Your task to perform on an android device: Open the phone app and click the voicemail tab. Image 0: 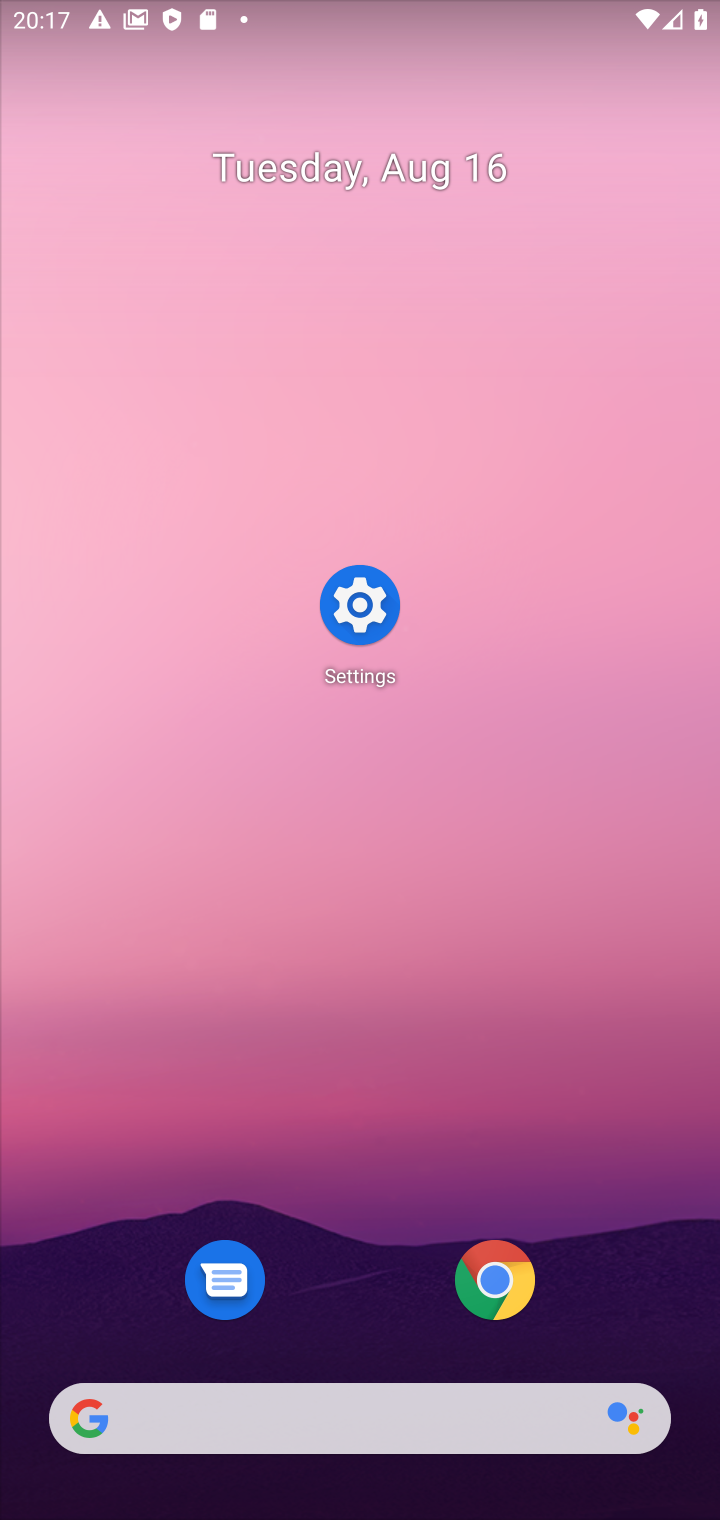
Step 0: drag from (347, 1275) to (408, 281)
Your task to perform on an android device: Open the phone app and click the voicemail tab. Image 1: 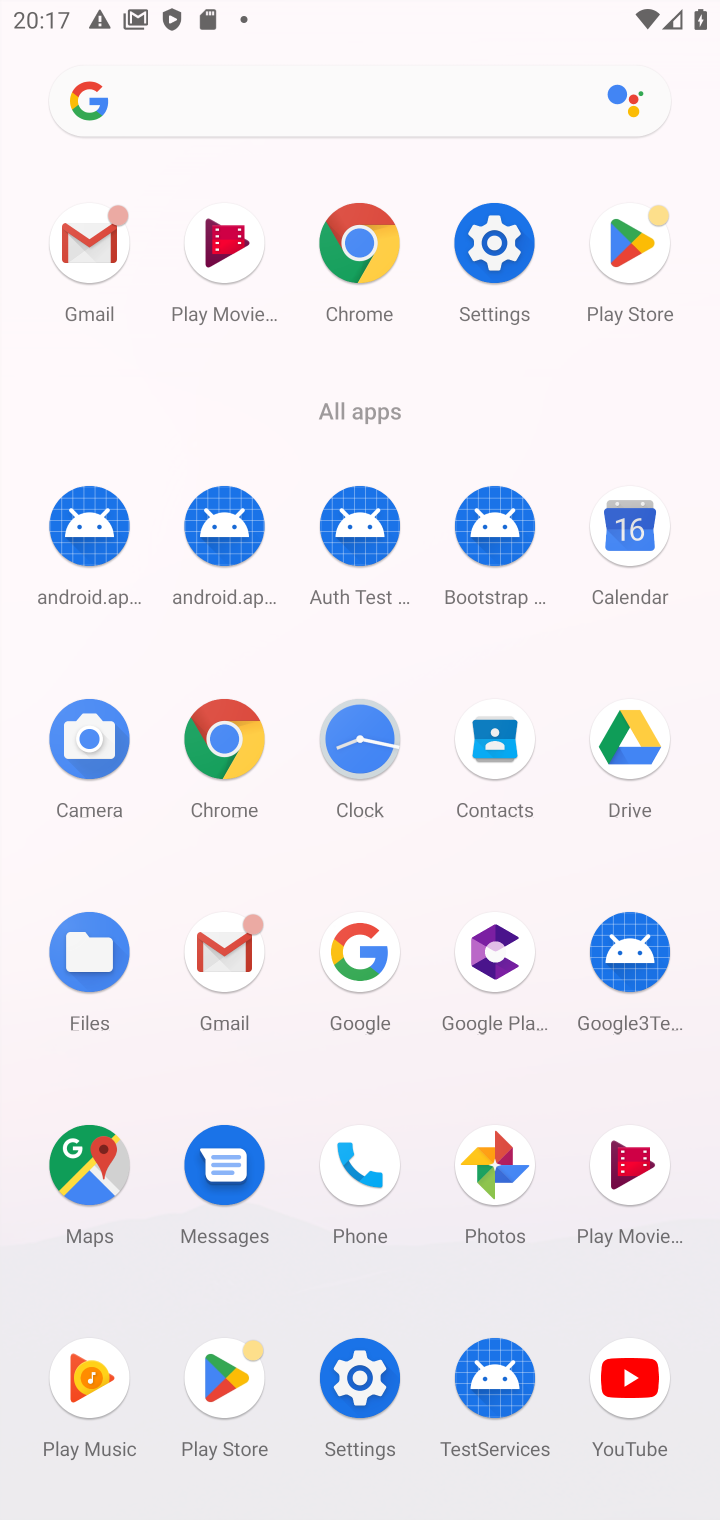
Step 1: click (356, 1211)
Your task to perform on an android device: Open the phone app and click the voicemail tab. Image 2: 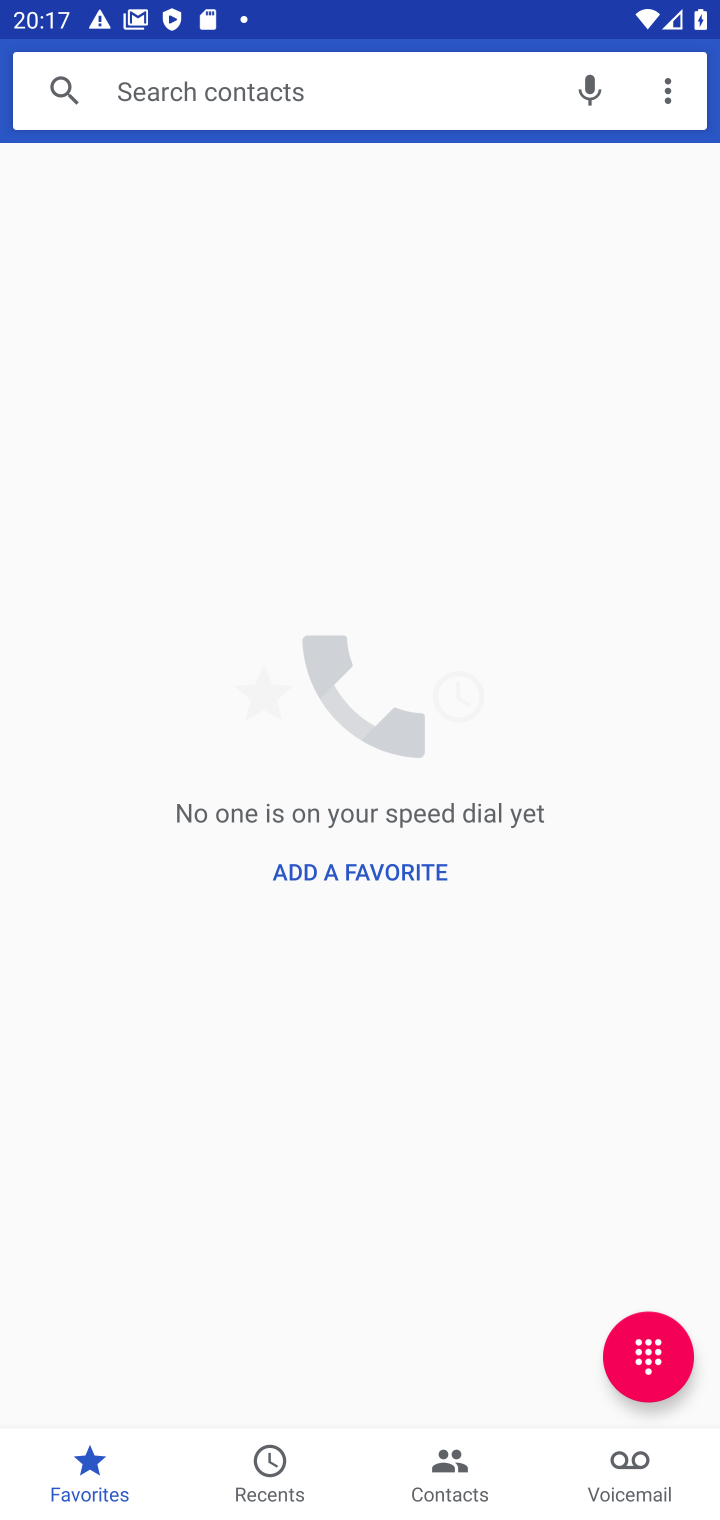
Step 2: click (622, 1470)
Your task to perform on an android device: Open the phone app and click the voicemail tab. Image 3: 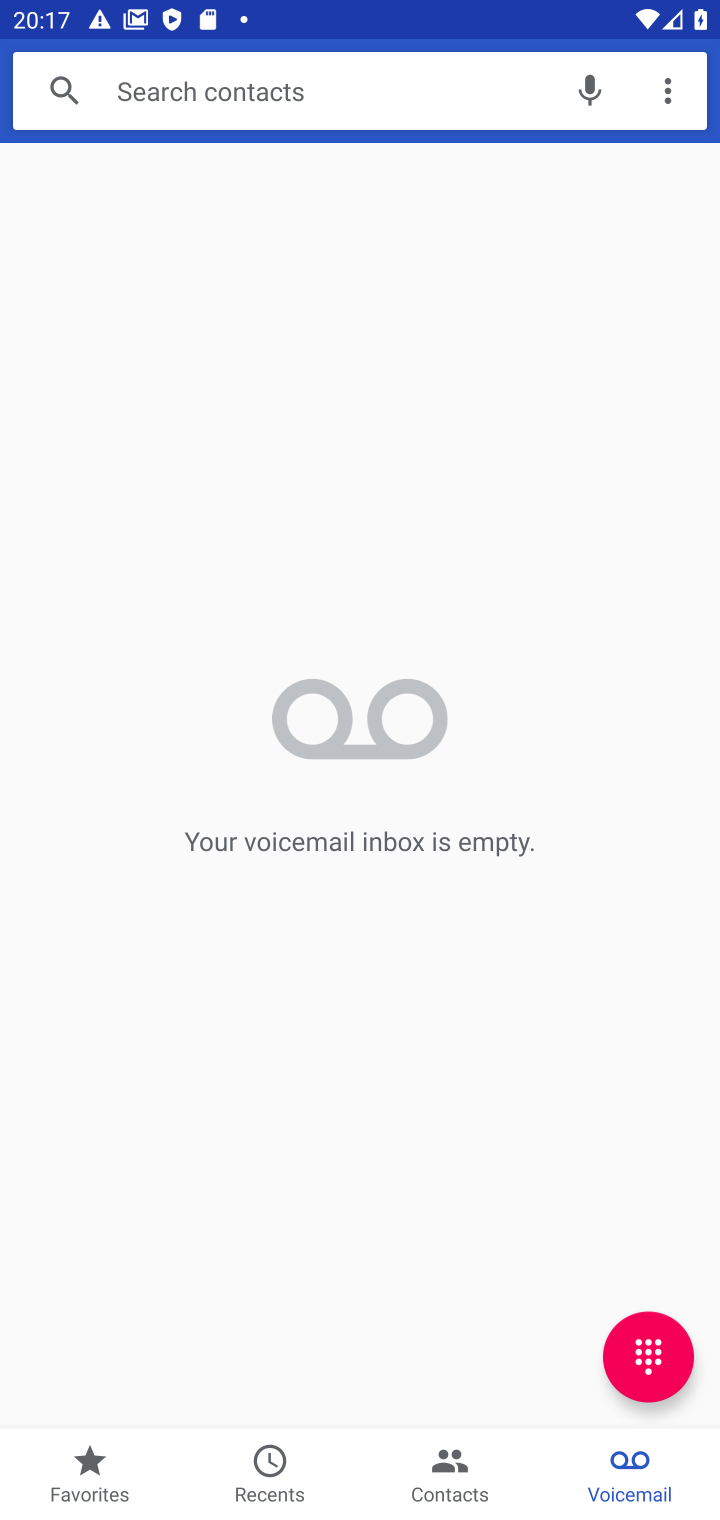
Step 3: task complete